Your task to perform on an android device: Go to sound settings Image 0: 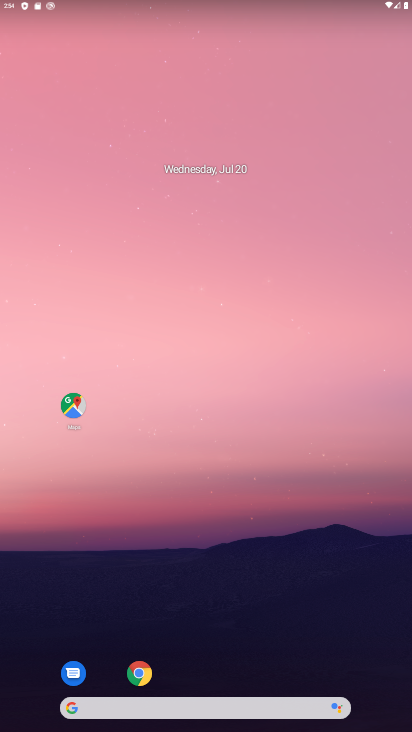
Step 0: drag from (283, 514) to (375, 67)
Your task to perform on an android device: Go to sound settings Image 1: 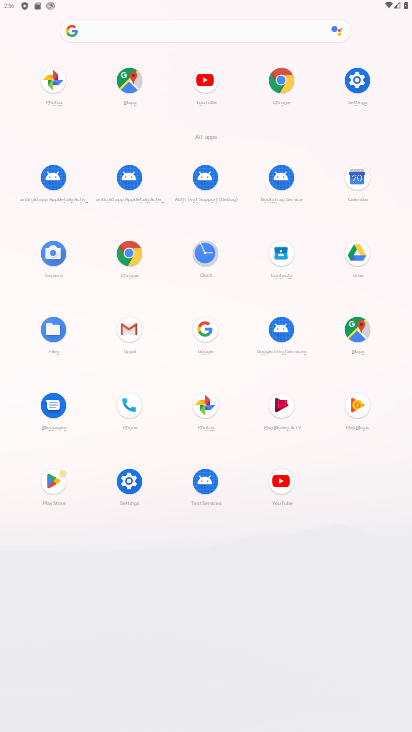
Step 1: click (137, 488)
Your task to perform on an android device: Go to sound settings Image 2: 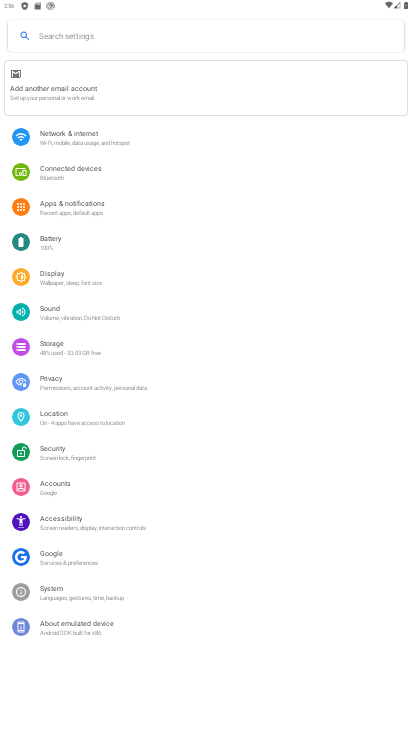
Step 2: click (76, 313)
Your task to perform on an android device: Go to sound settings Image 3: 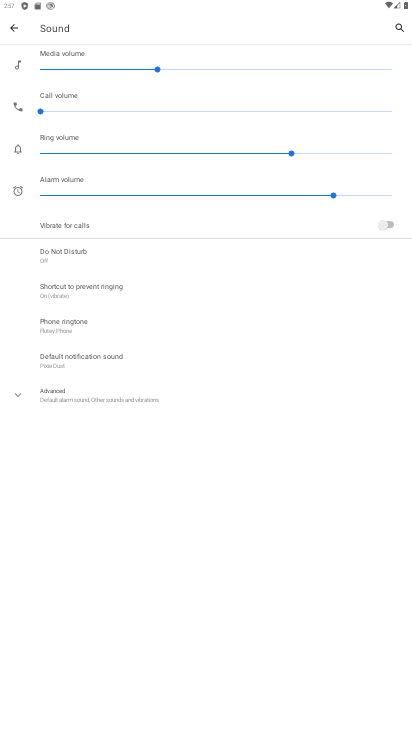
Step 3: task complete